Your task to perform on an android device: Open battery settings Image 0: 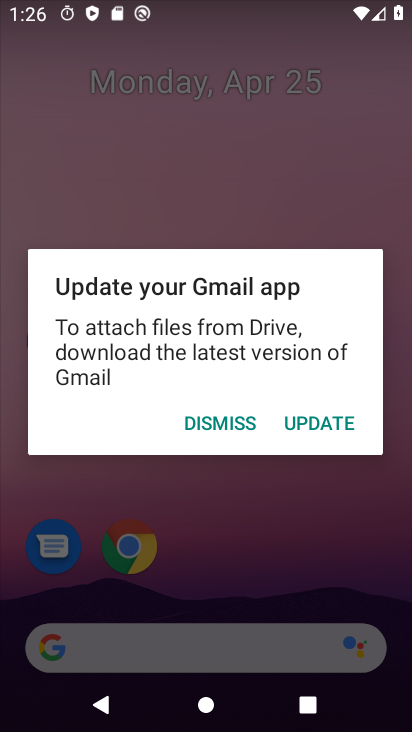
Step 0: click (198, 419)
Your task to perform on an android device: Open battery settings Image 1: 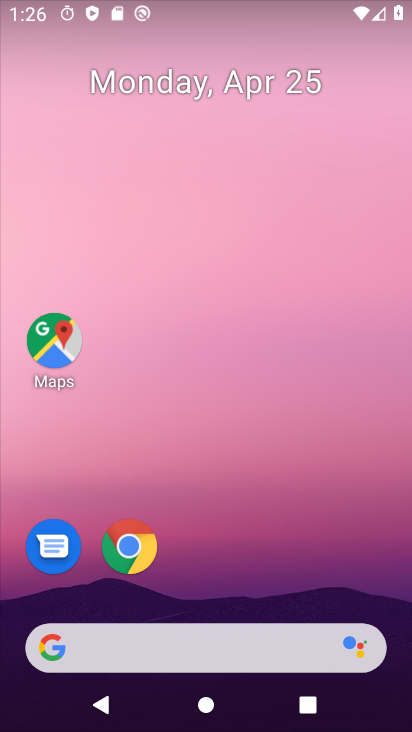
Step 1: drag from (228, 601) to (337, 42)
Your task to perform on an android device: Open battery settings Image 2: 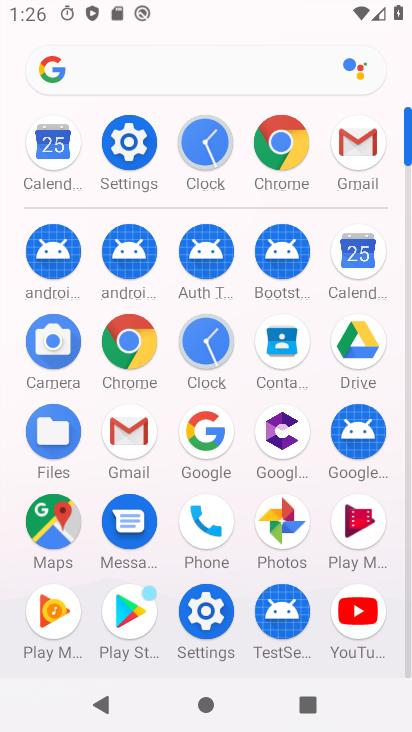
Step 2: click (134, 152)
Your task to perform on an android device: Open battery settings Image 3: 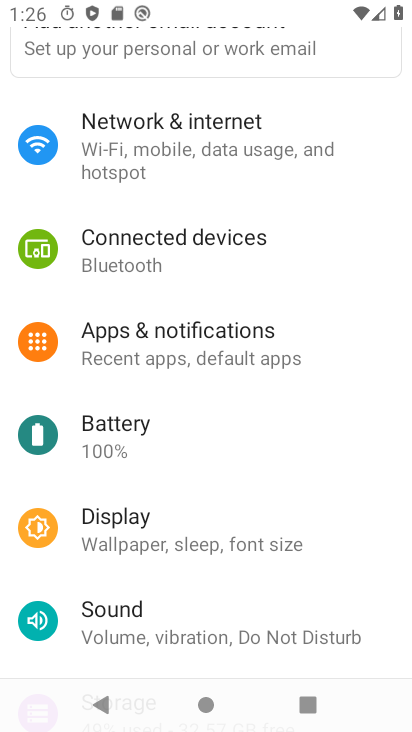
Step 3: click (98, 443)
Your task to perform on an android device: Open battery settings Image 4: 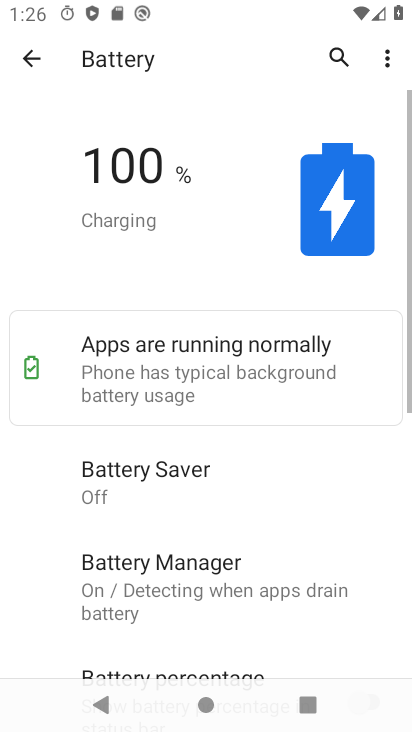
Step 4: task complete